Your task to perform on an android device: Open the calendar app, open the side menu, and click the "Day" option Image 0: 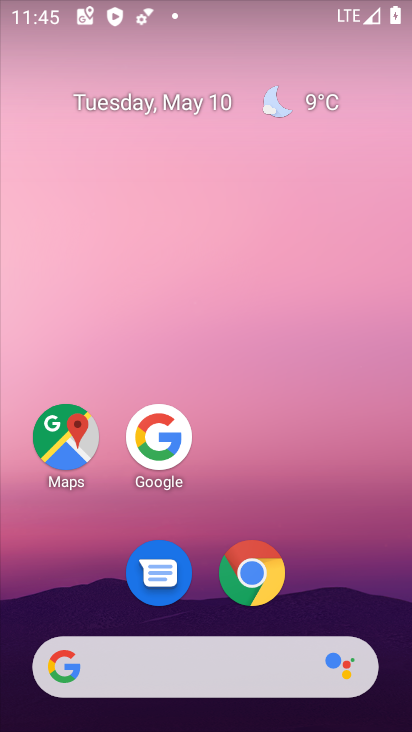
Step 0: press home button
Your task to perform on an android device: Open the calendar app, open the side menu, and click the "Day" option Image 1: 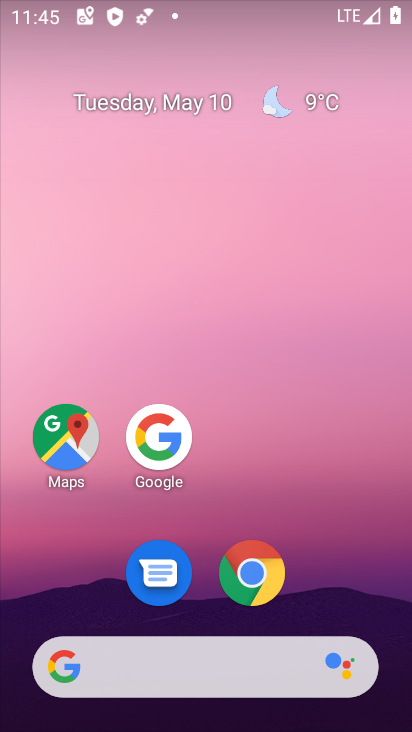
Step 1: drag from (181, 664) to (250, 106)
Your task to perform on an android device: Open the calendar app, open the side menu, and click the "Day" option Image 2: 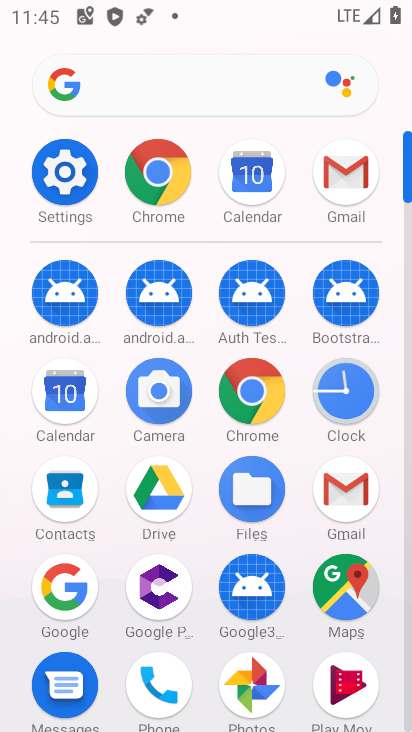
Step 2: click (67, 401)
Your task to perform on an android device: Open the calendar app, open the side menu, and click the "Day" option Image 3: 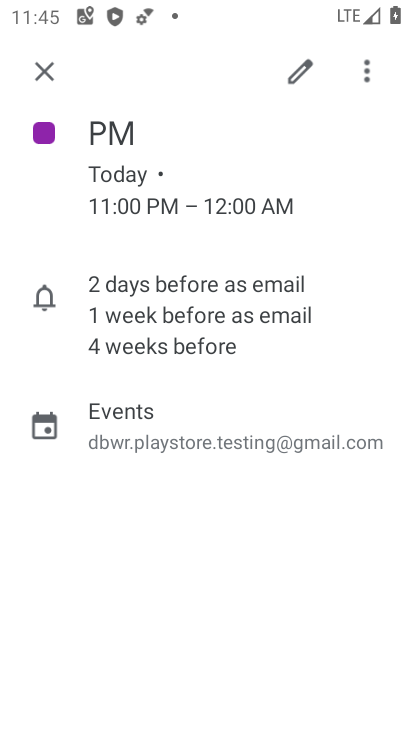
Step 3: click (40, 69)
Your task to perform on an android device: Open the calendar app, open the side menu, and click the "Day" option Image 4: 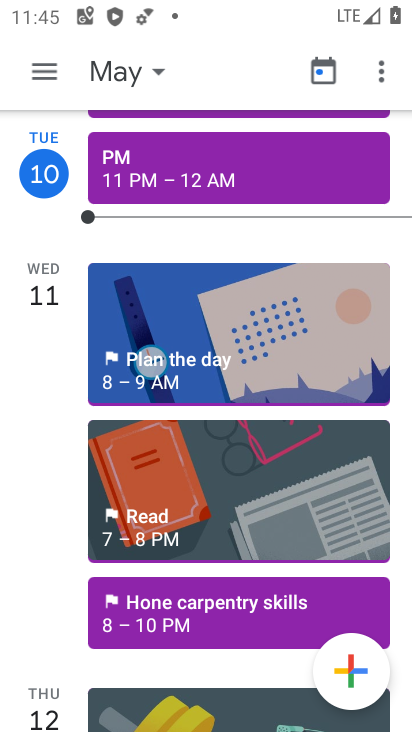
Step 4: click (50, 79)
Your task to perform on an android device: Open the calendar app, open the side menu, and click the "Day" option Image 5: 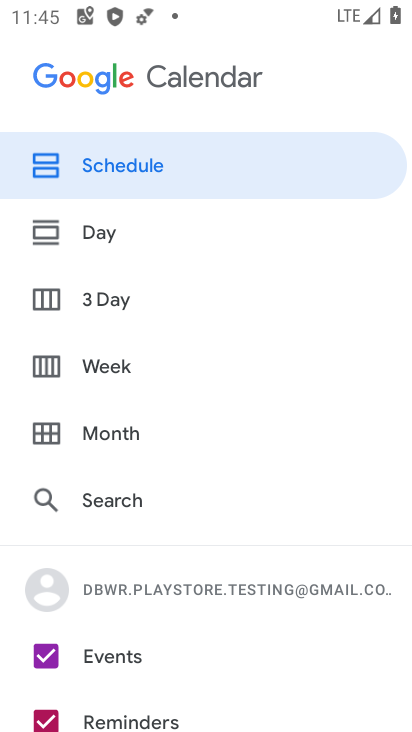
Step 5: click (105, 237)
Your task to perform on an android device: Open the calendar app, open the side menu, and click the "Day" option Image 6: 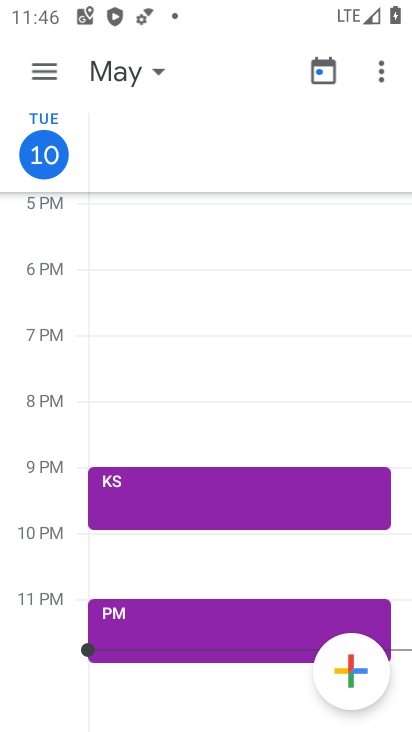
Step 6: task complete